Your task to perform on an android device: Show me recent news Image 0: 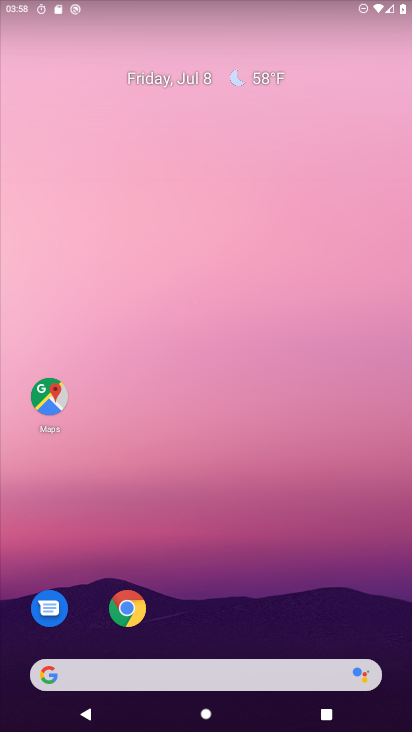
Step 0: drag from (1, 276) to (368, 297)
Your task to perform on an android device: Show me recent news Image 1: 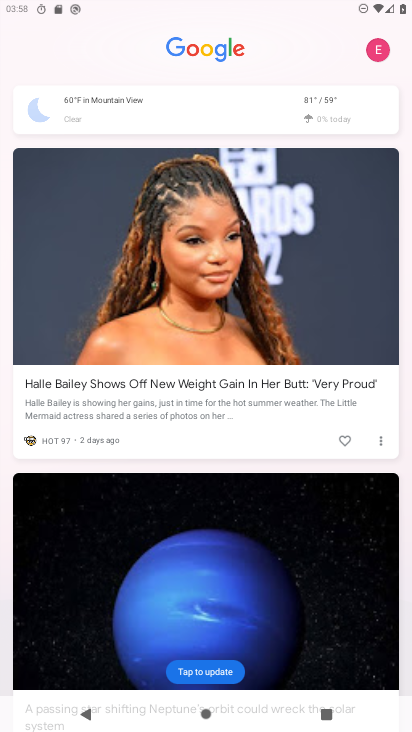
Step 1: task complete